Your task to perform on an android device: Go to Google maps Image 0: 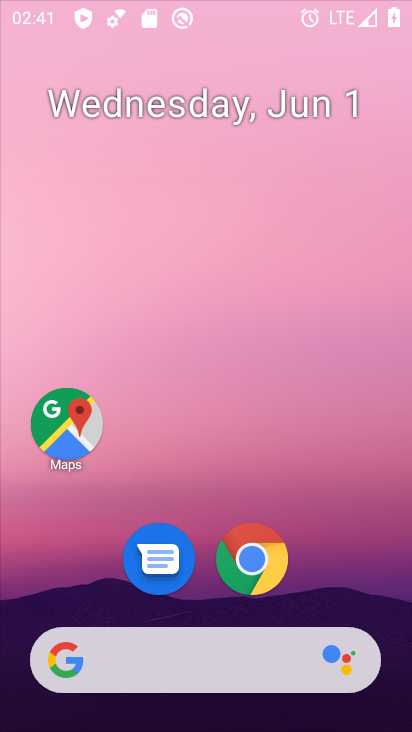
Step 0: press home button
Your task to perform on an android device: Go to Google maps Image 1: 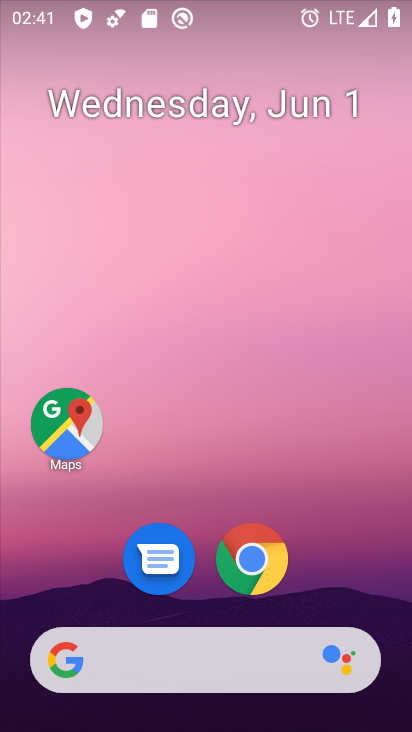
Step 1: click (62, 421)
Your task to perform on an android device: Go to Google maps Image 2: 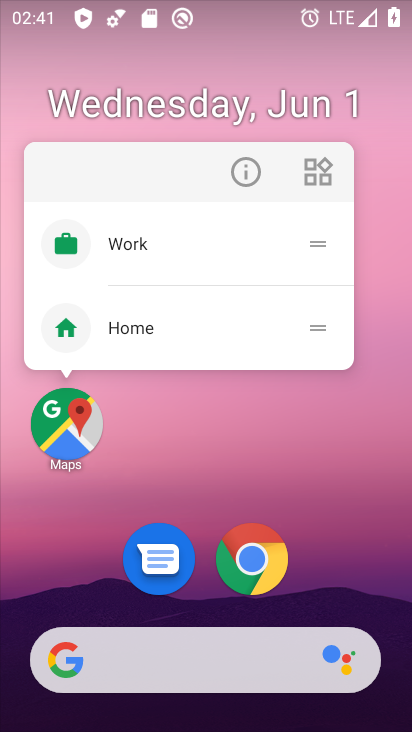
Step 2: click (62, 421)
Your task to perform on an android device: Go to Google maps Image 3: 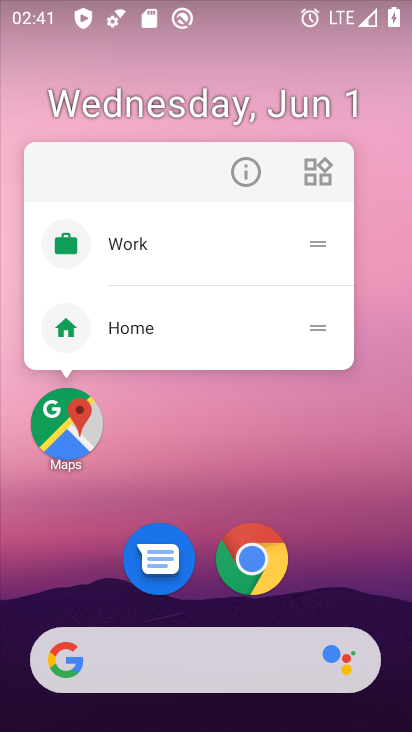
Step 3: click (70, 431)
Your task to perform on an android device: Go to Google maps Image 4: 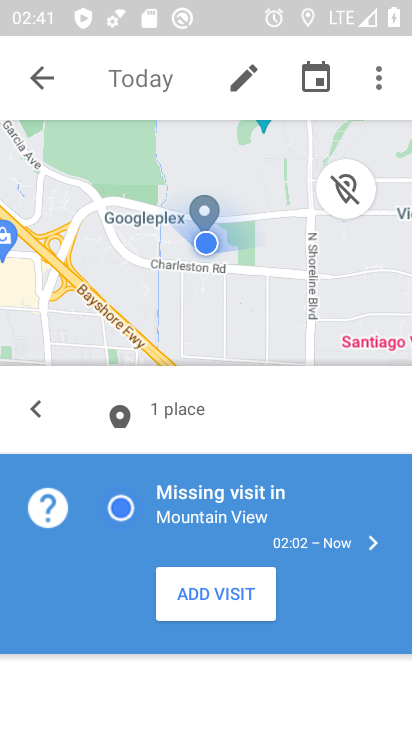
Step 4: click (39, 74)
Your task to perform on an android device: Go to Google maps Image 5: 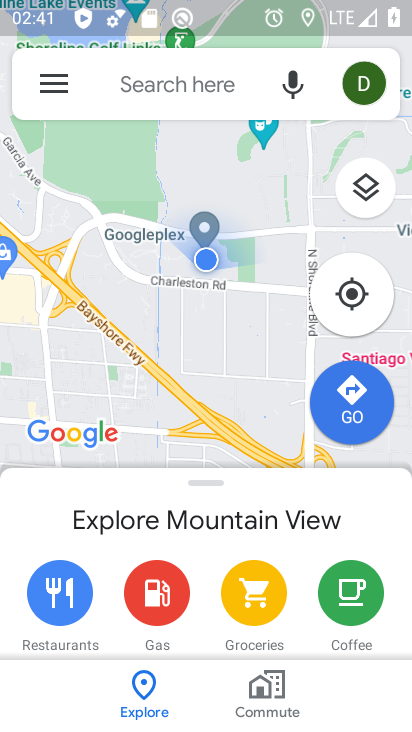
Step 5: task complete